Your task to perform on an android device: Open Maps and search for coffee Image 0: 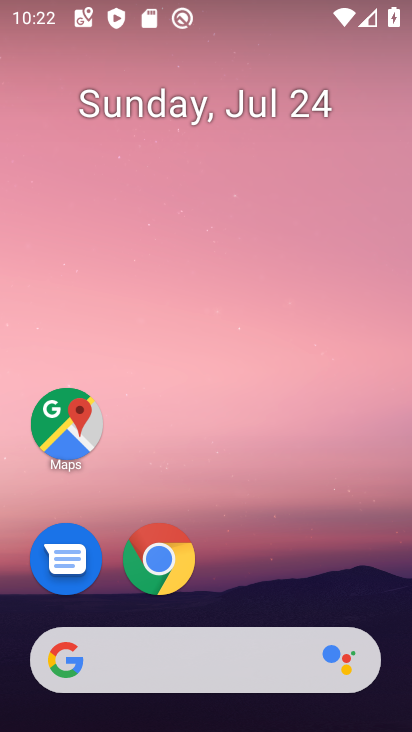
Step 0: click (64, 433)
Your task to perform on an android device: Open Maps and search for coffee Image 1: 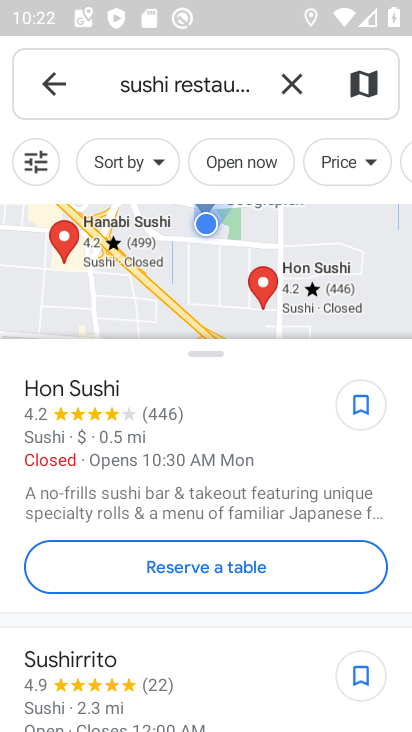
Step 1: click (299, 72)
Your task to perform on an android device: Open Maps and search for coffee Image 2: 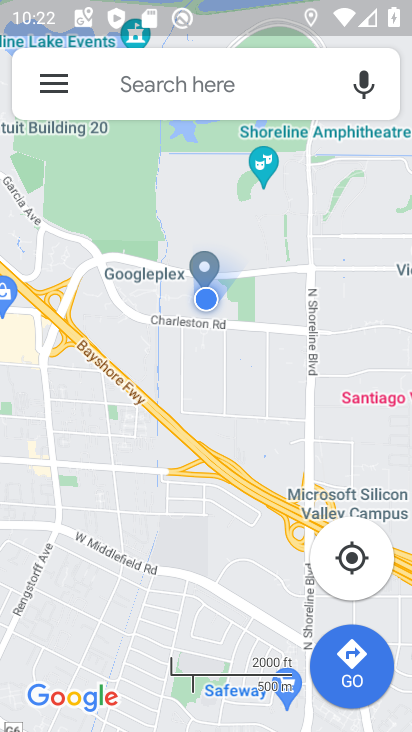
Step 2: click (131, 63)
Your task to perform on an android device: Open Maps and search for coffee Image 3: 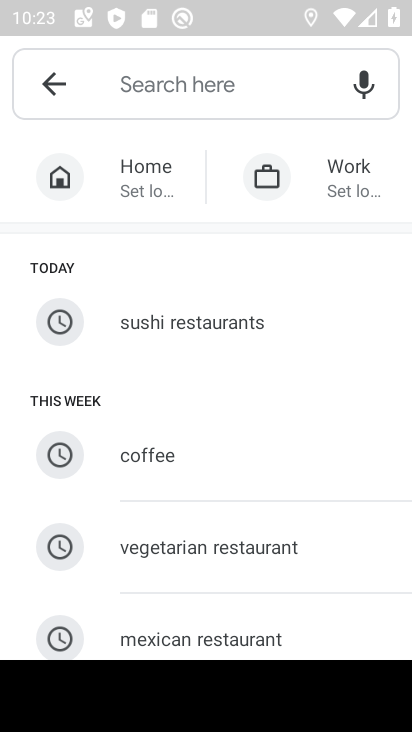
Step 3: click (147, 452)
Your task to perform on an android device: Open Maps and search for coffee Image 4: 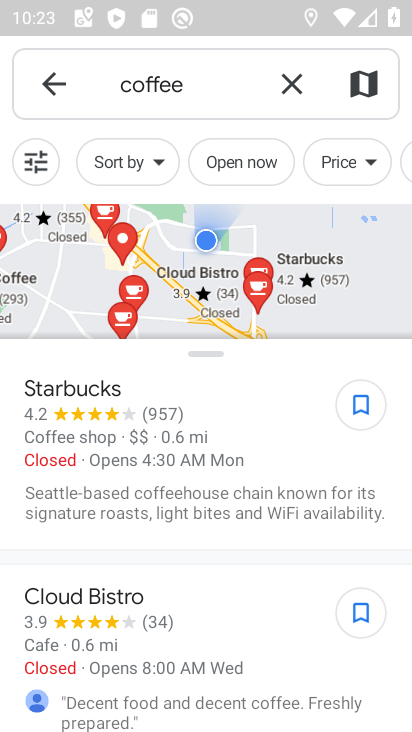
Step 4: task complete